Your task to perform on an android device: Play the last video I watched on Youtube Image 0: 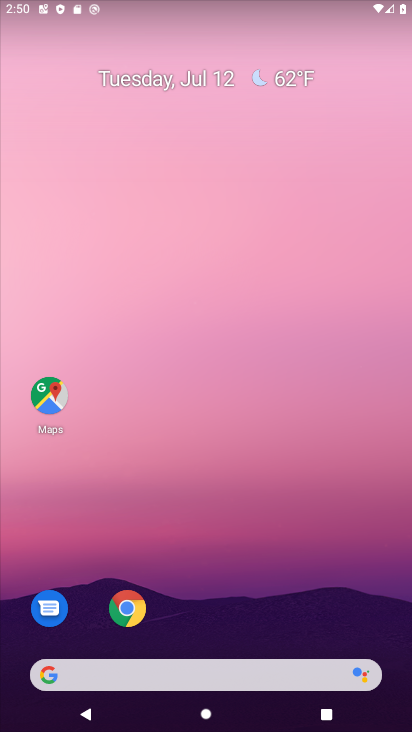
Step 0: drag from (187, 677) to (321, 254)
Your task to perform on an android device: Play the last video I watched on Youtube Image 1: 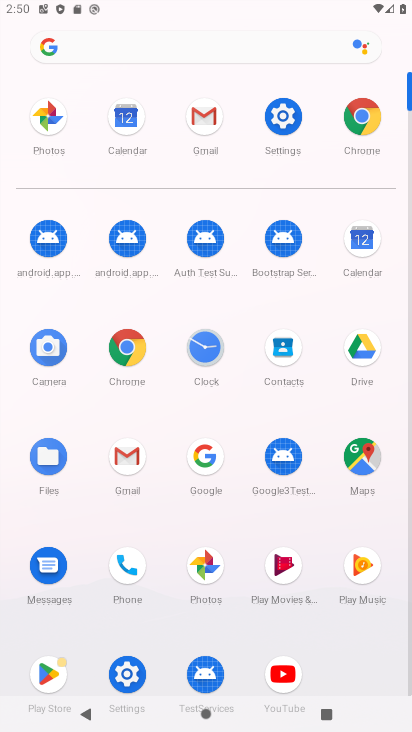
Step 1: click (283, 676)
Your task to perform on an android device: Play the last video I watched on Youtube Image 2: 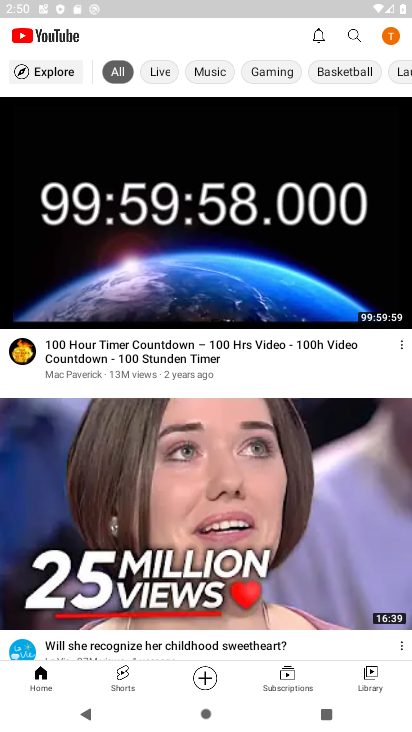
Step 2: task complete